Your task to perform on an android device: turn on location history Image 0: 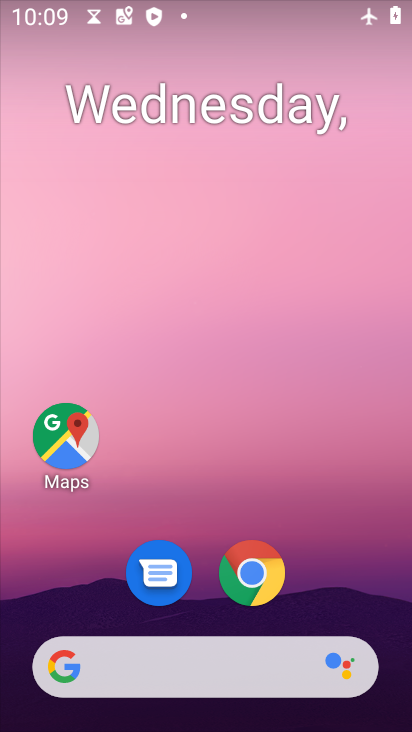
Step 0: click (314, 261)
Your task to perform on an android device: turn on location history Image 1: 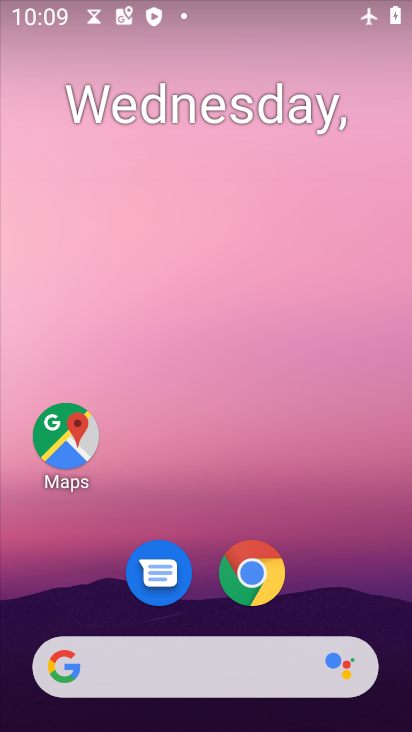
Step 1: drag from (300, 580) to (316, 244)
Your task to perform on an android device: turn on location history Image 2: 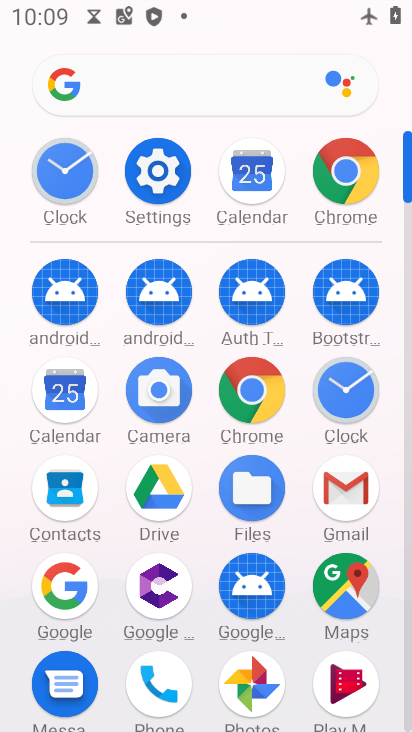
Step 2: click (160, 162)
Your task to perform on an android device: turn on location history Image 3: 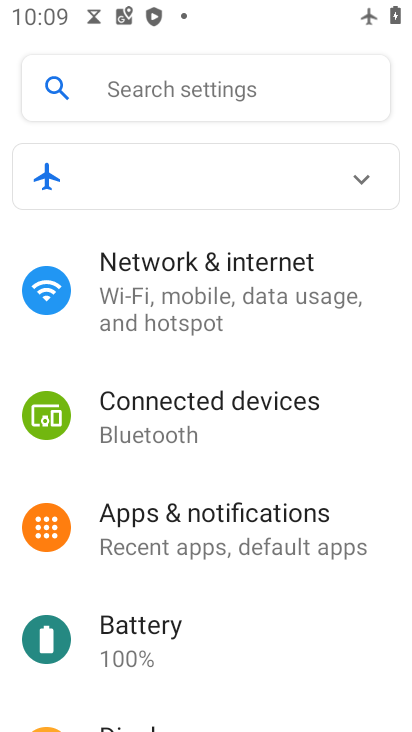
Step 3: drag from (256, 623) to (250, 309)
Your task to perform on an android device: turn on location history Image 4: 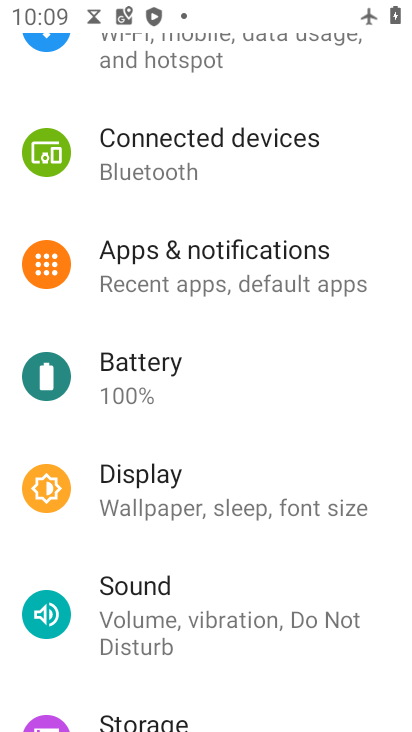
Step 4: drag from (215, 586) to (222, 286)
Your task to perform on an android device: turn on location history Image 5: 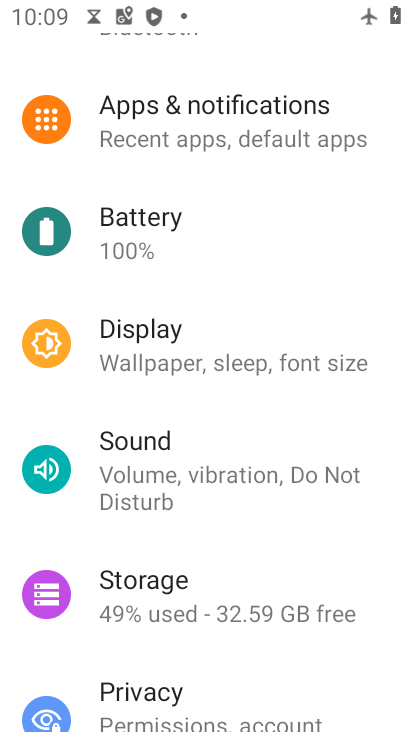
Step 5: drag from (198, 593) to (236, 264)
Your task to perform on an android device: turn on location history Image 6: 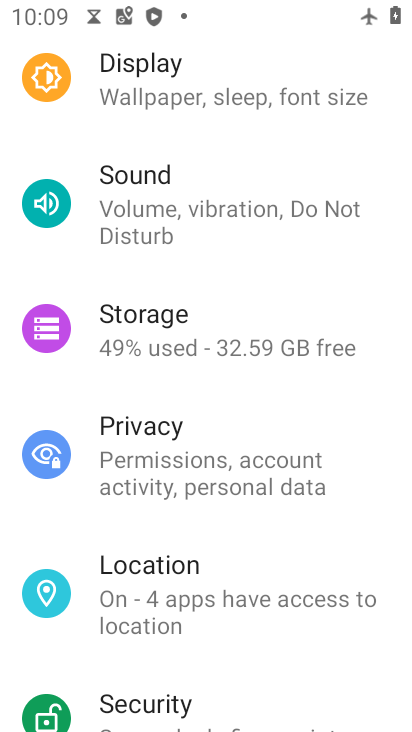
Step 6: drag from (271, 592) to (274, 308)
Your task to perform on an android device: turn on location history Image 7: 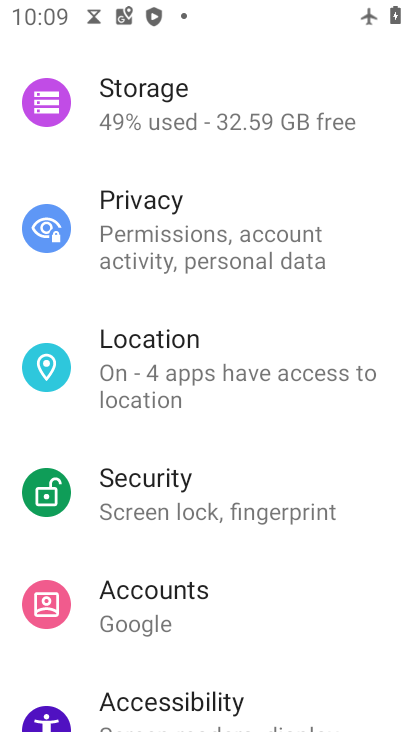
Step 7: click (193, 357)
Your task to perform on an android device: turn on location history Image 8: 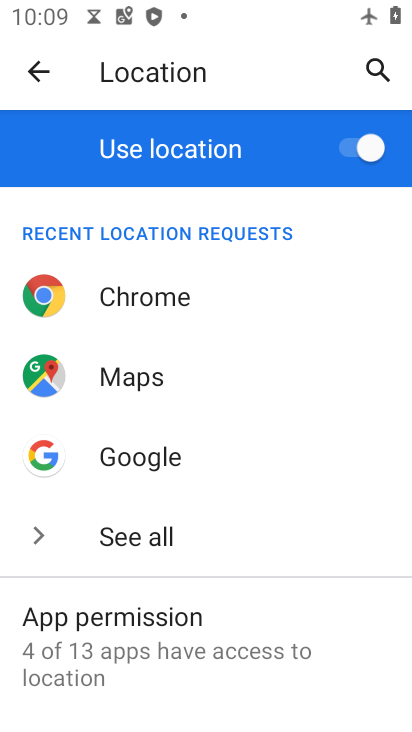
Step 8: drag from (204, 600) to (208, 359)
Your task to perform on an android device: turn on location history Image 9: 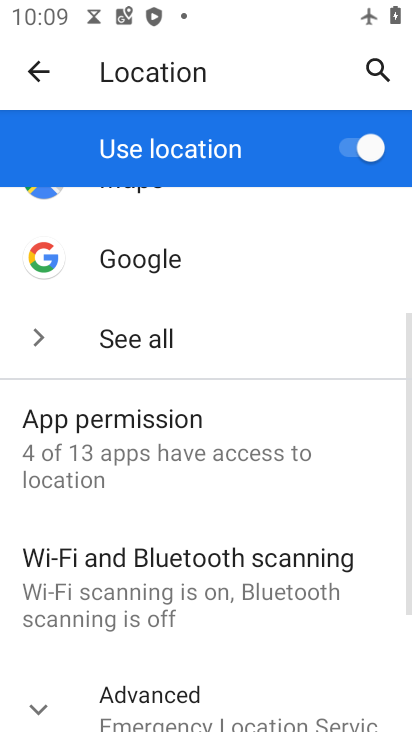
Step 9: drag from (237, 585) to (254, 307)
Your task to perform on an android device: turn on location history Image 10: 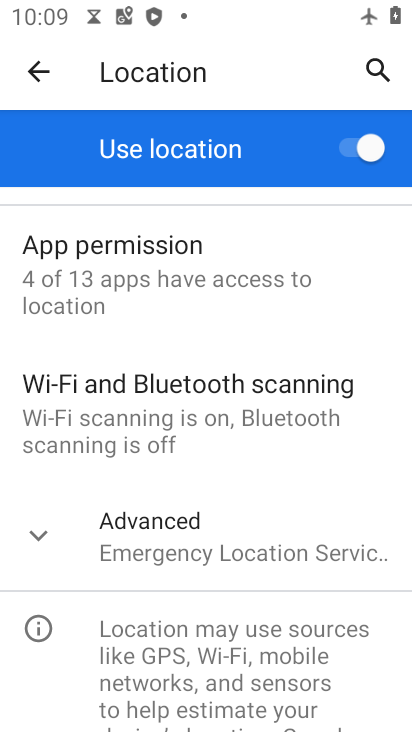
Step 10: drag from (225, 583) to (236, 342)
Your task to perform on an android device: turn on location history Image 11: 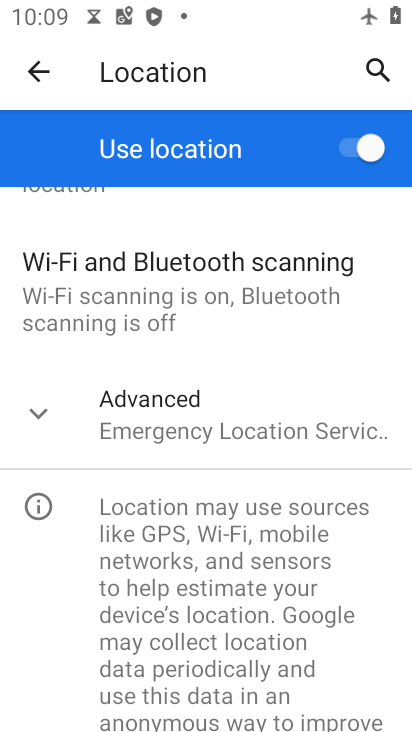
Step 11: click (181, 434)
Your task to perform on an android device: turn on location history Image 12: 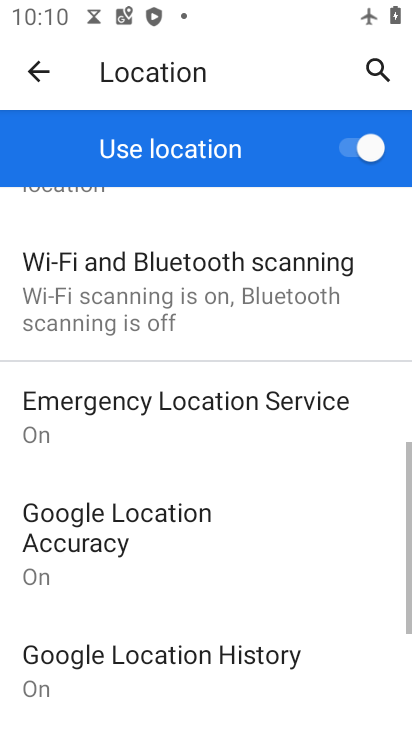
Step 12: drag from (234, 577) to (218, 398)
Your task to perform on an android device: turn on location history Image 13: 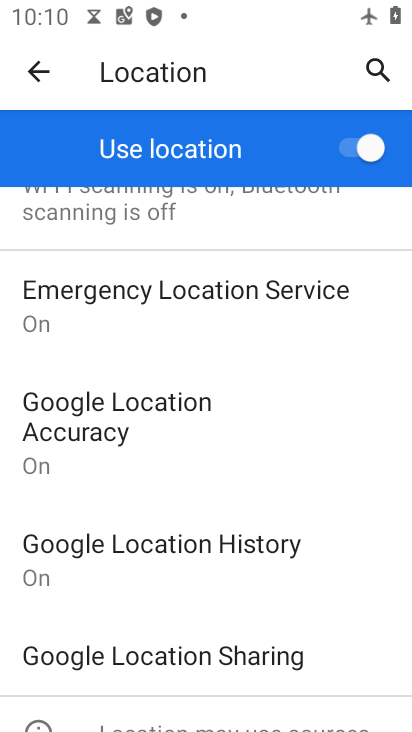
Step 13: click (198, 549)
Your task to perform on an android device: turn on location history Image 14: 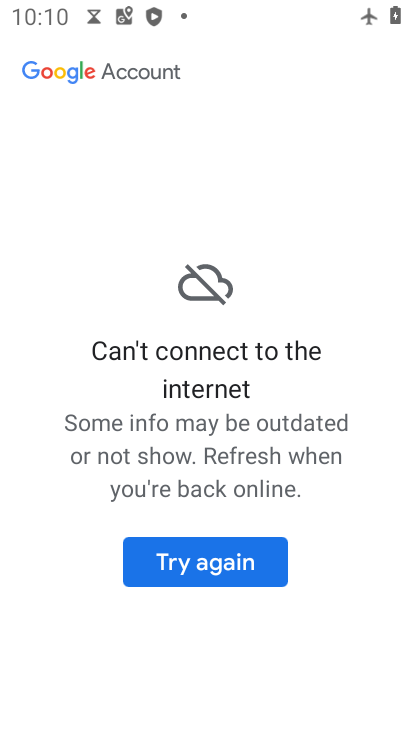
Step 14: click (200, 555)
Your task to perform on an android device: turn on location history Image 15: 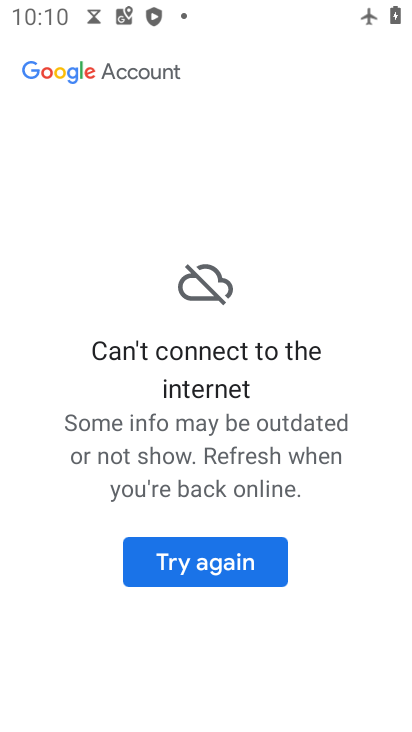
Step 15: task complete